Your task to perform on an android device: change the upload size in google photos Image 0: 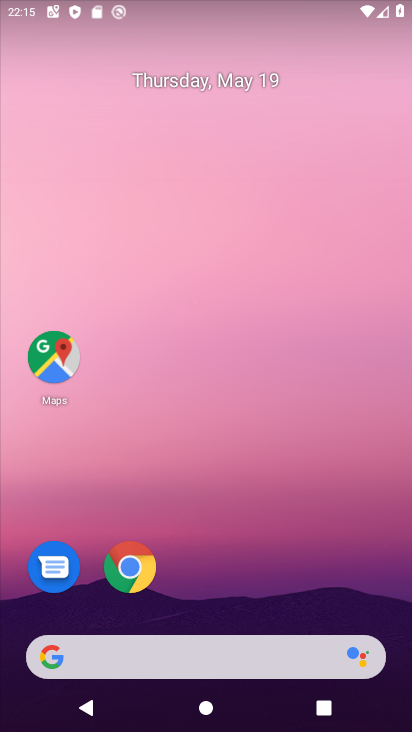
Step 0: press home button
Your task to perform on an android device: change the upload size in google photos Image 1: 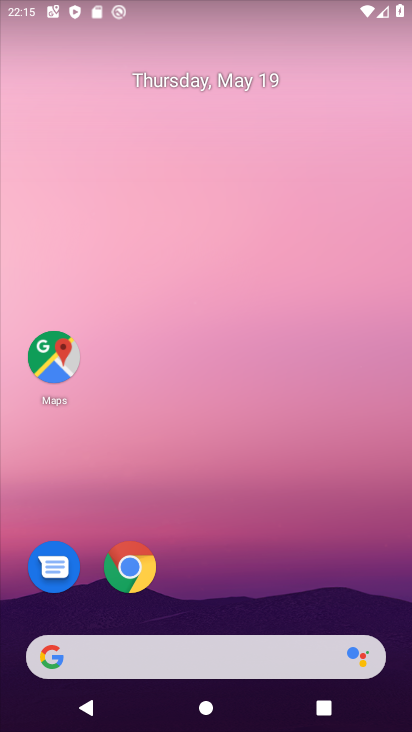
Step 1: drag from (224, 620) to (255, 10)
Your task to perform on an android device: change the upload size in google photos Image 2: 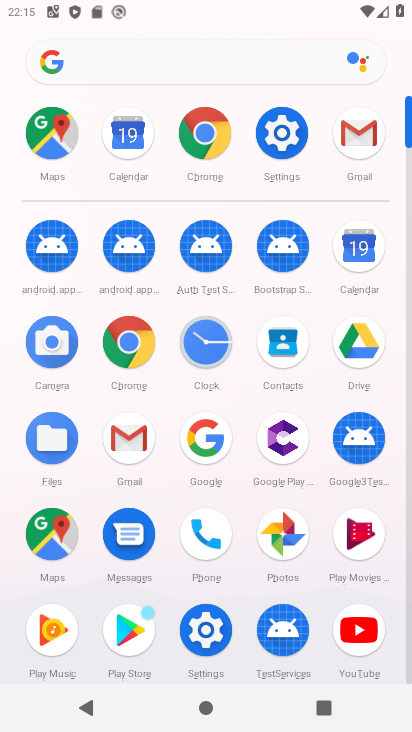
Step 2: click (279, 534)
Your task to perform on an android device: change the upload size in google photos Image 3: 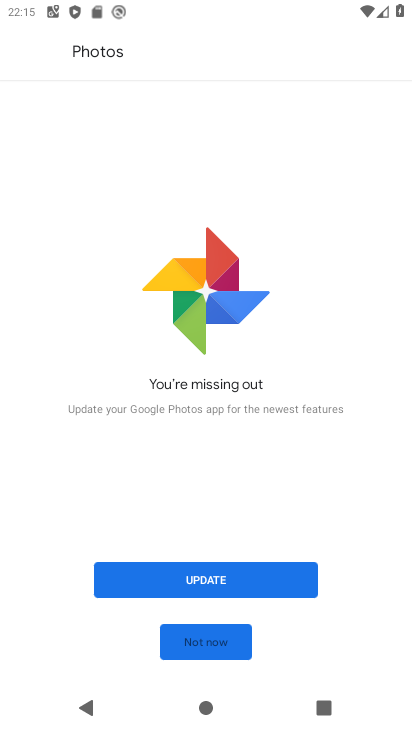
Step 3: click (195, 582)
Your task to perform on an android device: change the upload size in google photos Image 4: 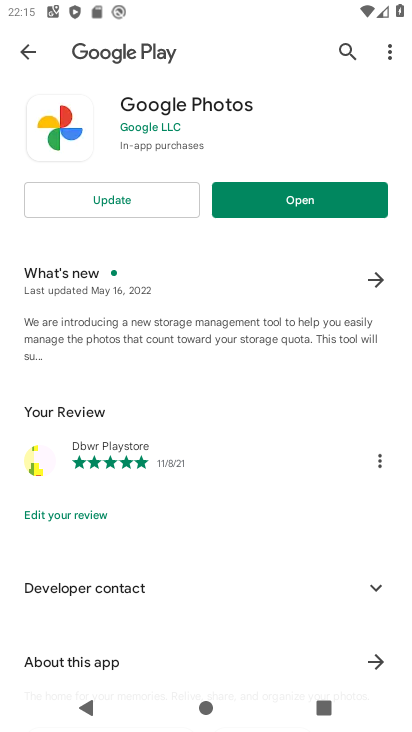
Step 4: click (127, 194)
Your task to perform on an android device: change the upload size in google photos Image 5: 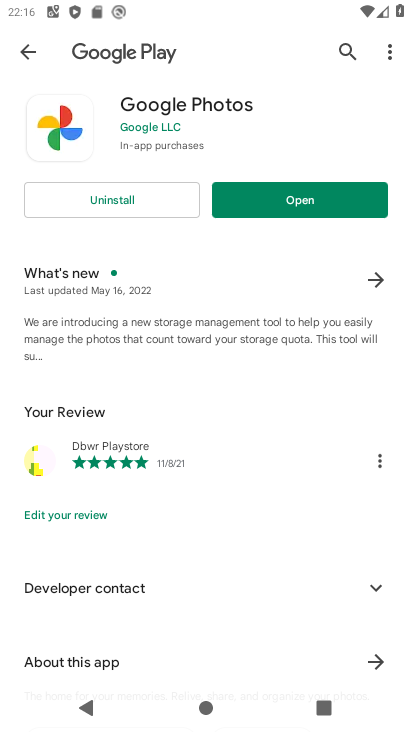
Step 5: click (304, 196)
Your task to perform on an android device: change the upload size in google photos Image 6: 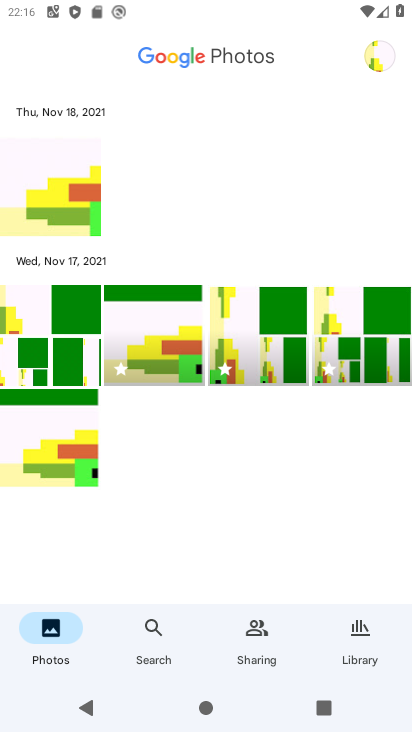
Step 6: click (150, 631)
Your task to perform on an android device: change the upload size in google photos Image 7: 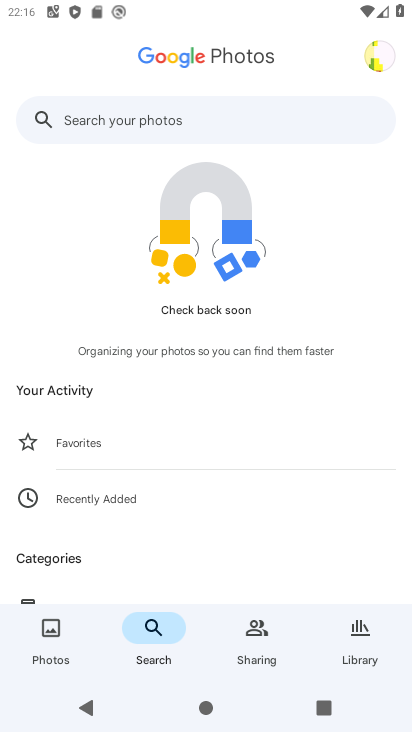
Step 7: click (389, 52)
Your task to perform on an android device: change the upload size in google photos Image 8: 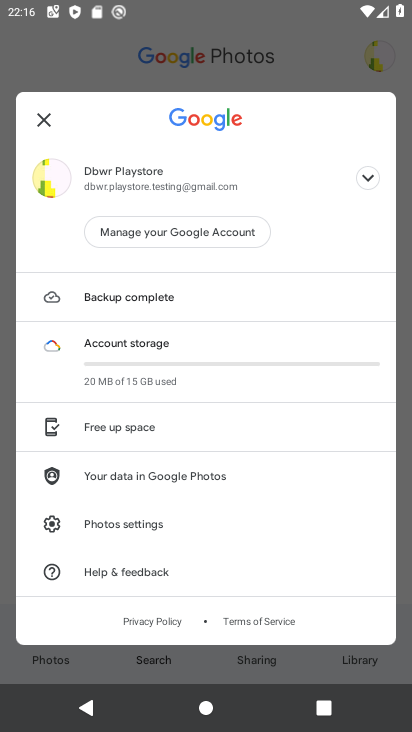
Step 8: click (144, 298)
Your task to perform on an android device: change the upload size in google photos Image 9: 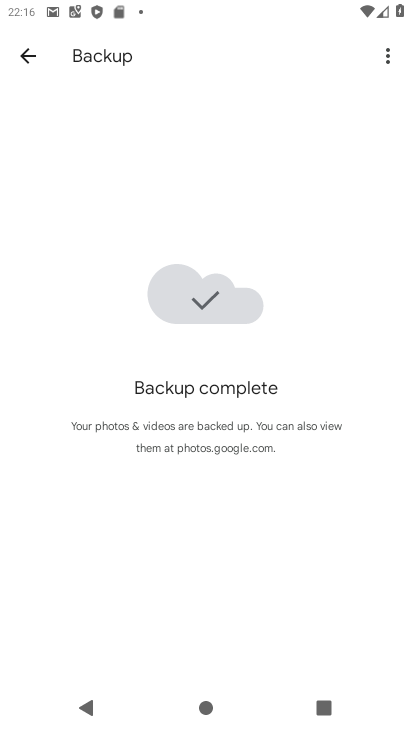
Step 9: click (383, 51)
Your task to perform on an android device: change the upload size in google photos Image 10: 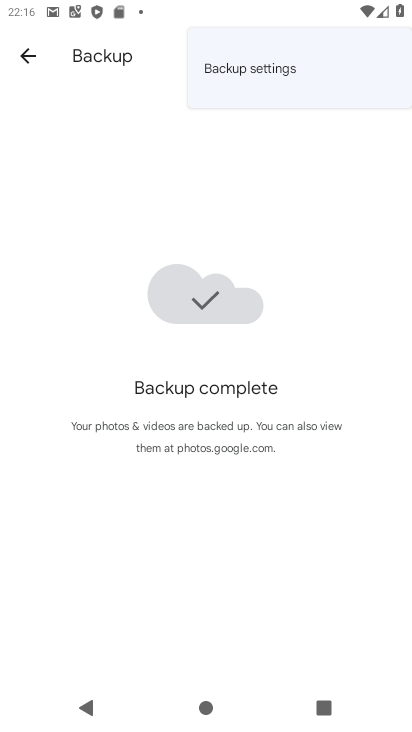
Step 10: click (276, 81)
Your task to perform on an android device: change the upload size in google photos Image 11: 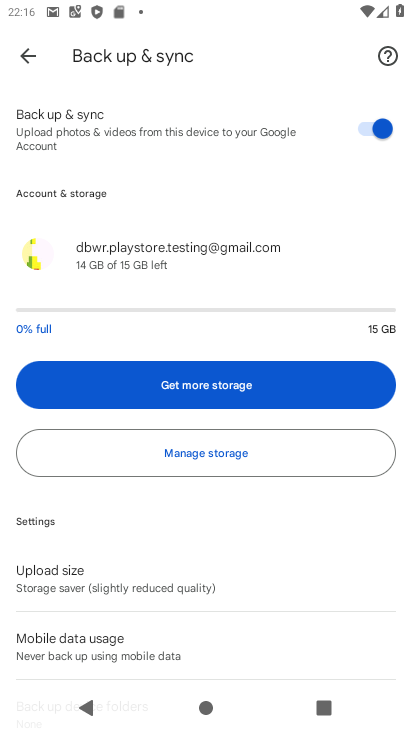
Step 11: click (101, 576)
Your task to perform on an android device: change the upload size in google photos Image 12: 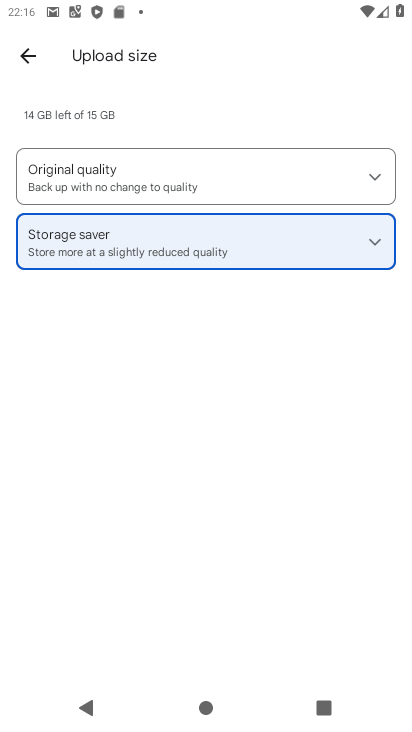
Step 12: click (137, 174)
Your task to perform on an android device: change the upload size in google photos Image 13: 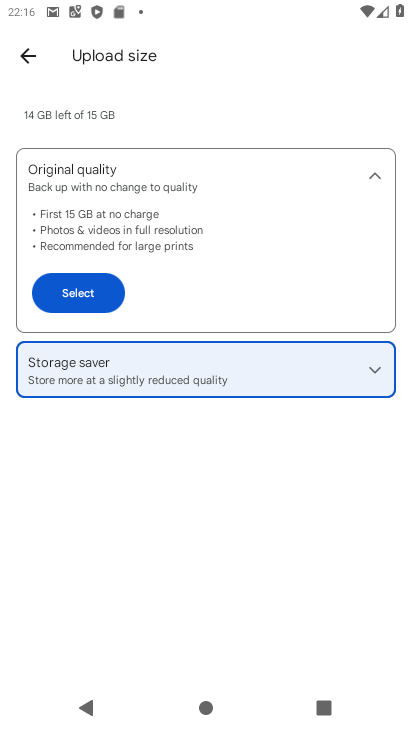
Step 13: click (79, 295)
Your task to perform on an android device: change the upload size in google photos Image 14: 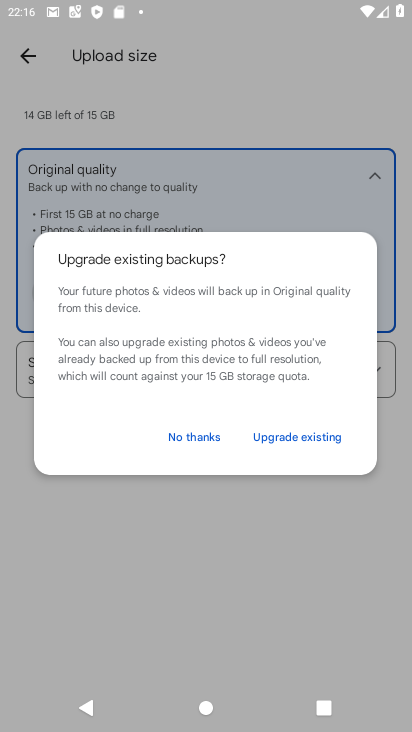
Step 14: click (182, 437)
Your task to perform on an android device: change the upload size in google photos Image 15: 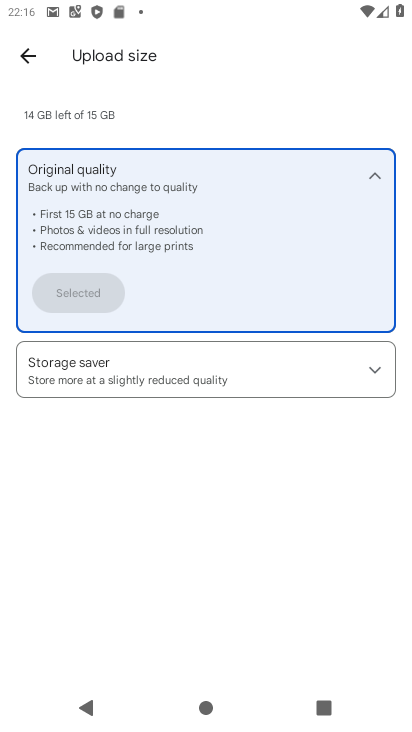
Step 15: task complete